Your task to perform on an android device: Go to eBay Image 0: 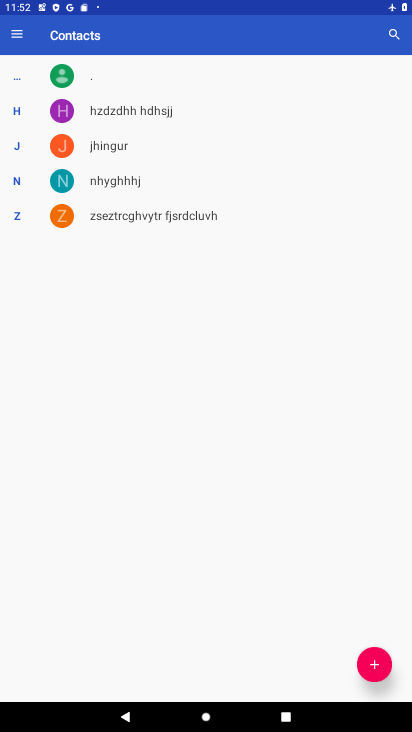
Step 0: press home button
Your task to perform on an android device: Go to eBay Image 1: 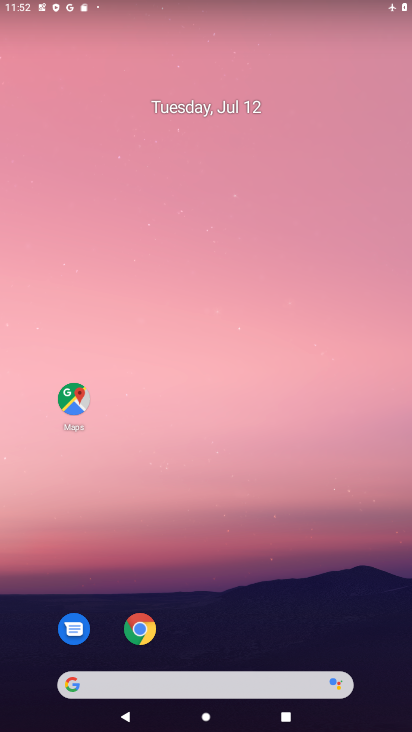
Step 1: drag from (261, 646) to (299, 251)
Your task to perform on an android device: Go to eBay Image 2: 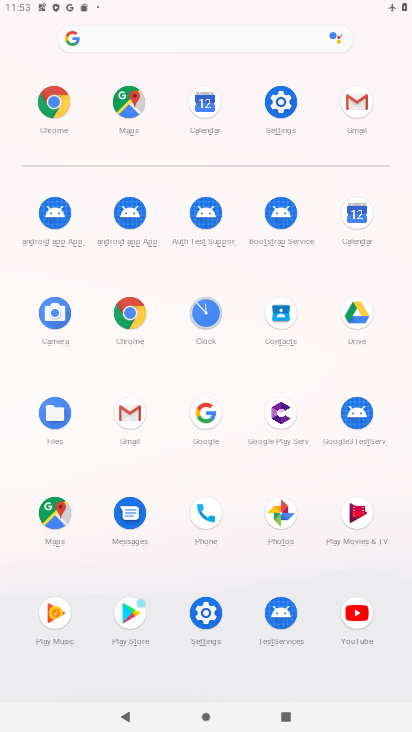
Step 2: click (125, 313)
Your task to perform on an android device: Go to eBay Image 3: 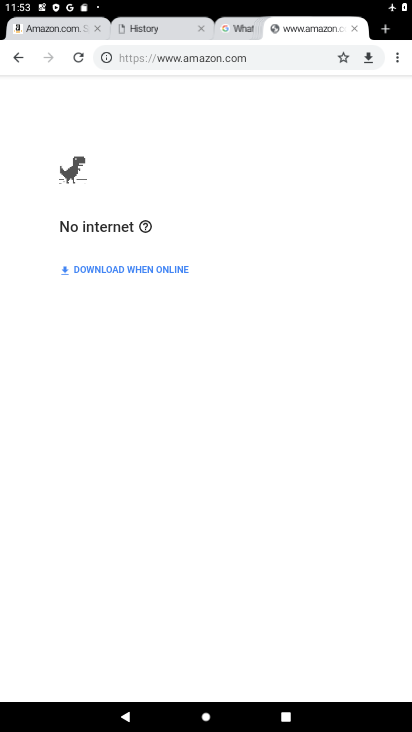
Step 3: click (390, 55)
Your task to perform on an android device: Go to eBay Image 4: 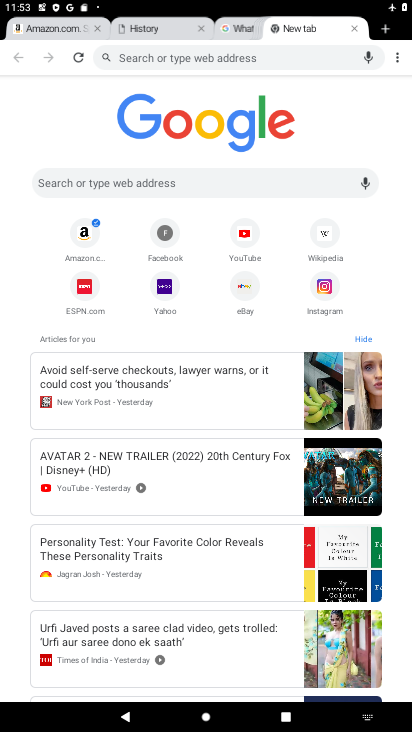
Step 4: click (244, 286)
Your task to perform on an android device: Go to eBay Image 5: 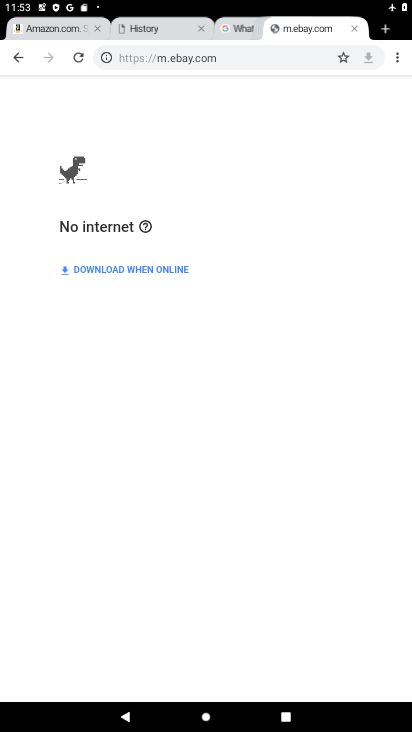
Step 5: task complete